Your task to perform on an android device: Go to Amazon Image 0: 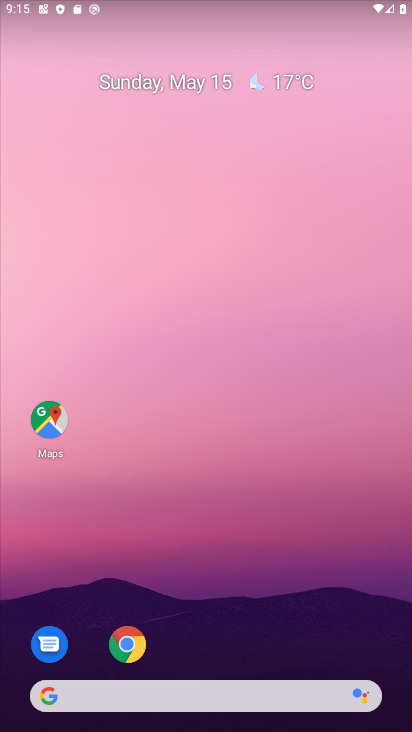
Step 0: drag from (229, 709) to (395, 63)
Your task to perform on an android device: Go to Amazon Image 1: 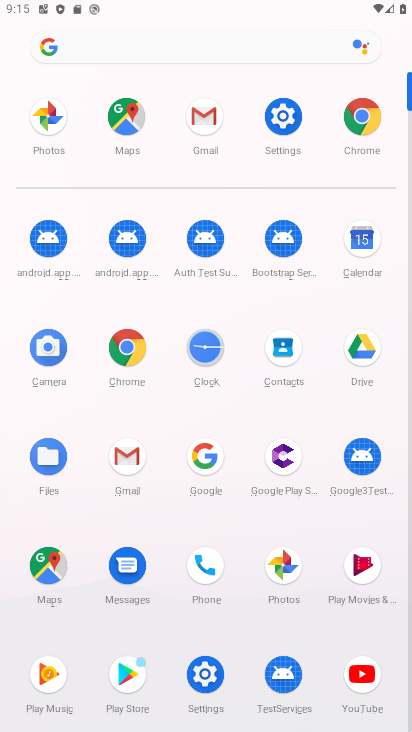
Step 1: click (352, 127)
Your task to perform on an android device: Go to Amazon Image 2: 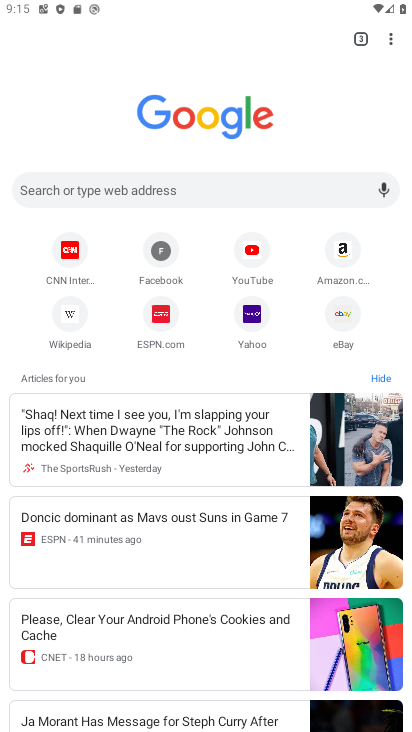
Step 2: click (343, 239)
Your task to perform on an android device: Go to Amazon Image 3: 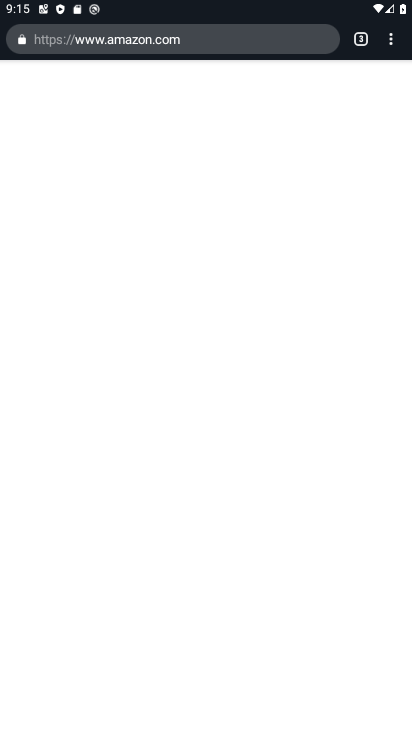
Step 3: task complete